Your task to perform on an android device: open a bookmark in the chrome app Image 0: 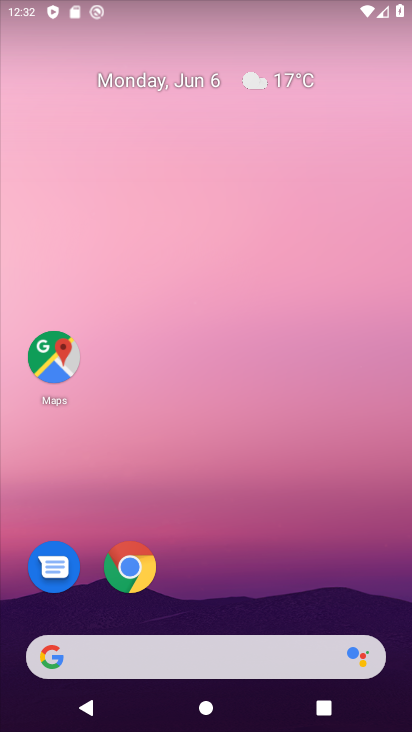
Step 0: click (135, 567)
Your task to perform on an android device: open a bookmark in the chrome app Image 1: 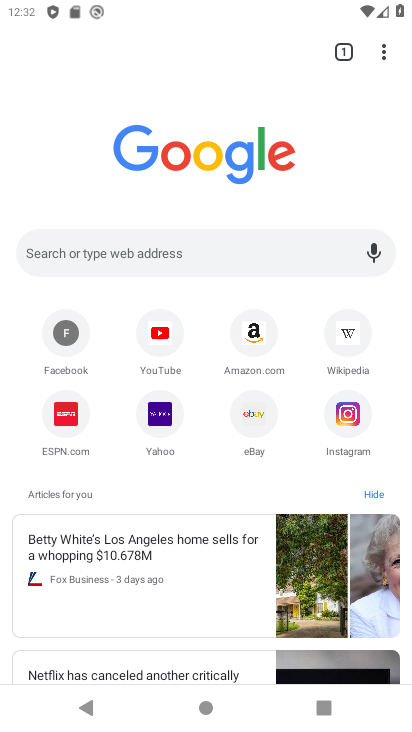
Step 1: click (384, 55)
Your task to perform on an android device: open a bookmark in the chrome app Image 2: 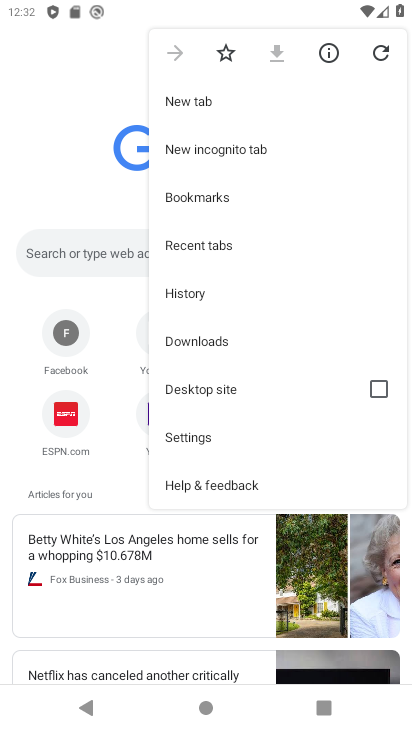
Step 2: click (209, 196)
Your task to perform on an android device: open a bookmark in the chrome app Image 3: 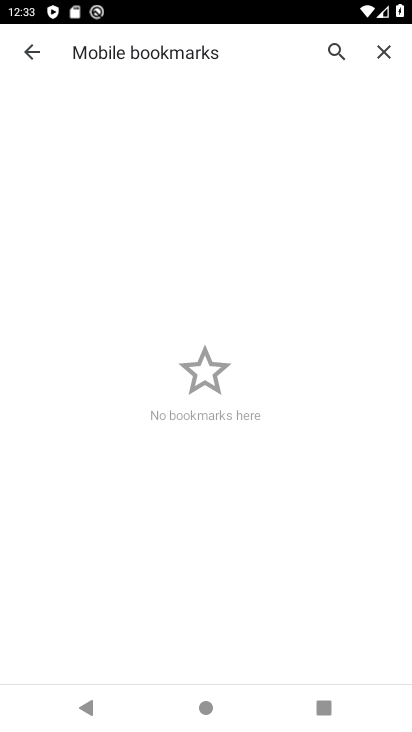
Step 3: task complete